Your task to perform on an android device: Go to Google Image 0: 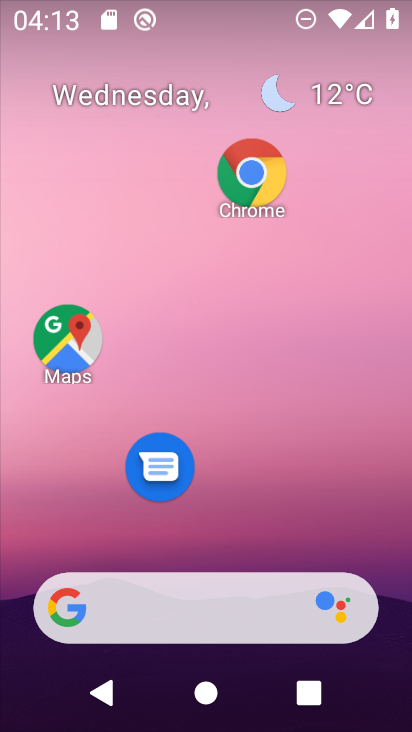
Step 0: drag from (235, 498) to (237, 63)
Your task to perform on an android device: Go to Google Image 1: 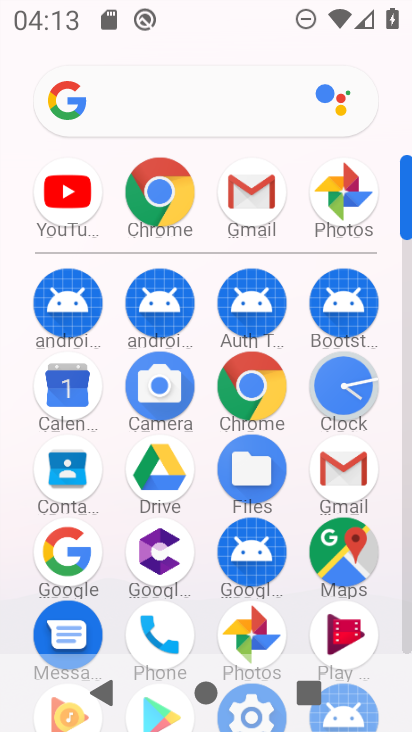
Step 1: click (62, 542)
Your task to perform on an android device: Go to Google Image 2: 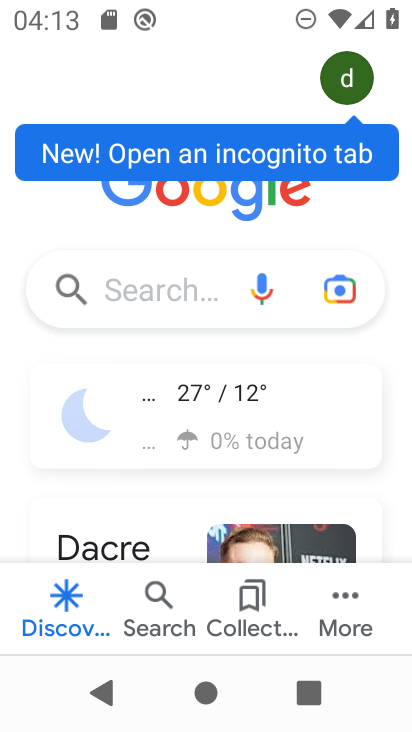
Step 2: task complete